Your task to perform on an android device: Open my contact list Image 0: 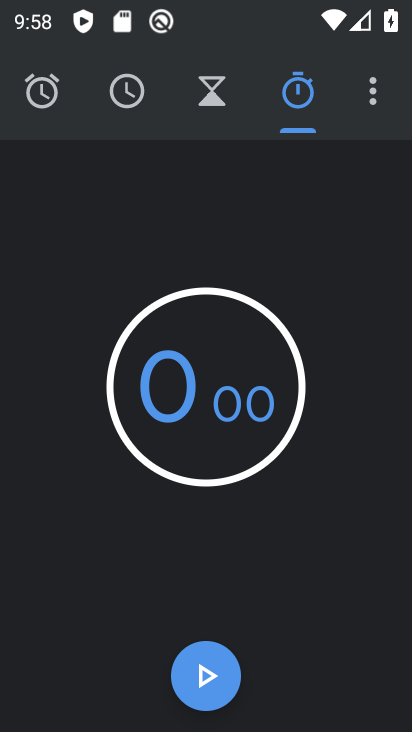
Step 0: press home button
Your task to perform on an android device: Open my contact list Image 1: 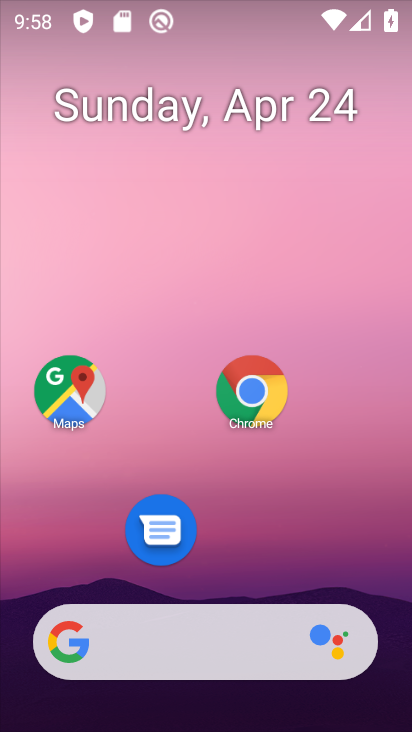
Step 1: drag from (297, 597) to (258, 20)
Your task to perform on an android device: Open my contact list Image 2: 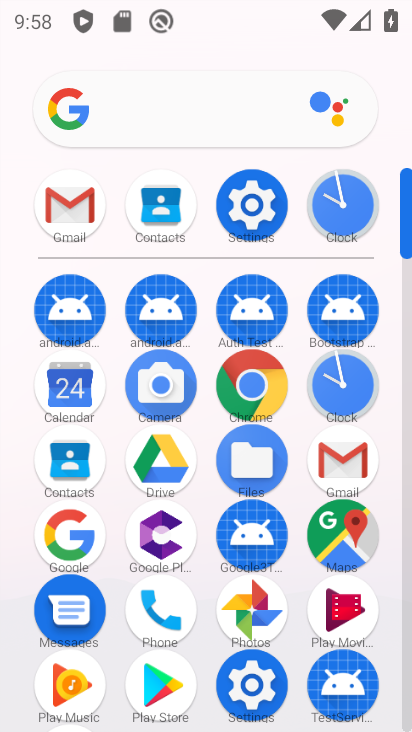
Step 2: click (168, 222)
Your task to perform on an android device: Open my contact list Image 3: 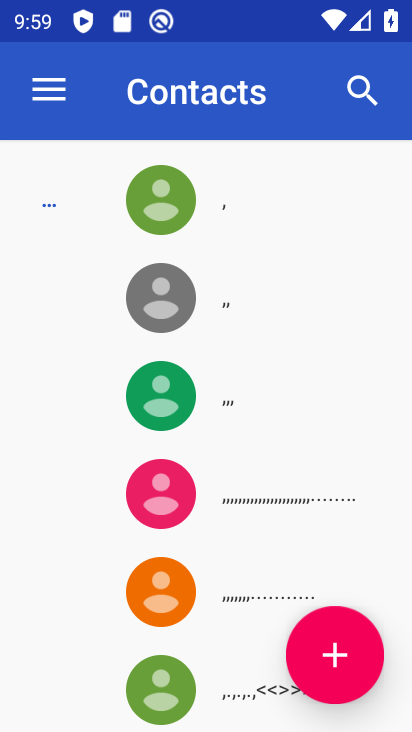
Step 3: click (348, 662)
Your task to perform on an android device: Open my contact list Image 4: 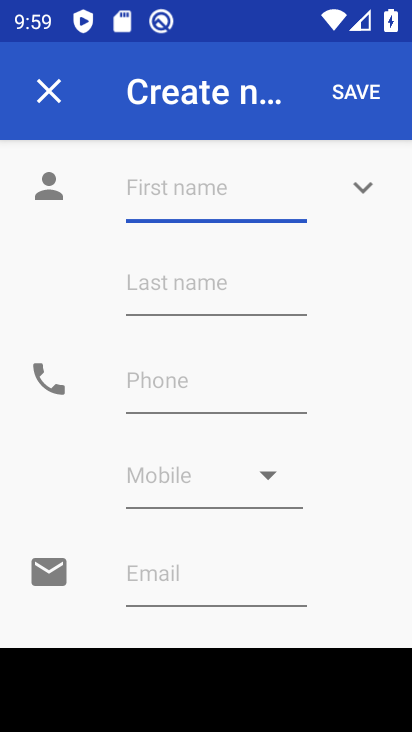
Step 4: type ",,,,"
Your task to perform on an android device: Open my contact list Image 5: 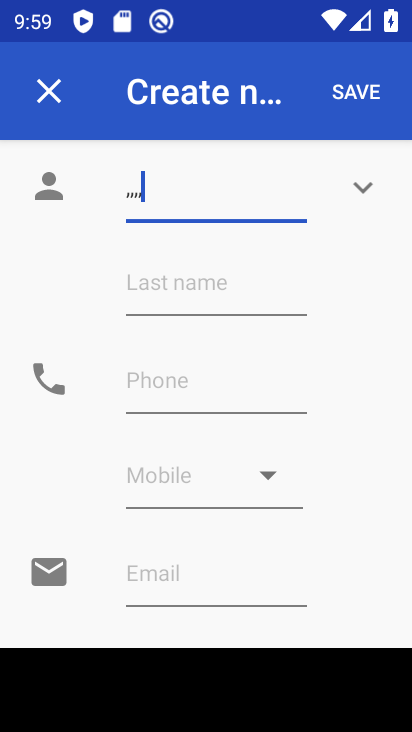
Step 5: type ""
Your task to perform on an android device: Open my contact list Image 6: 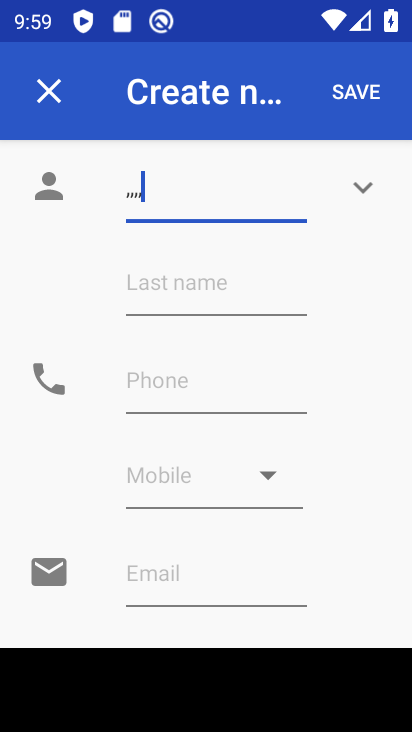
Step 6: click (169, 368)
Your task to perform on an android device: Open my contact list Image 7: 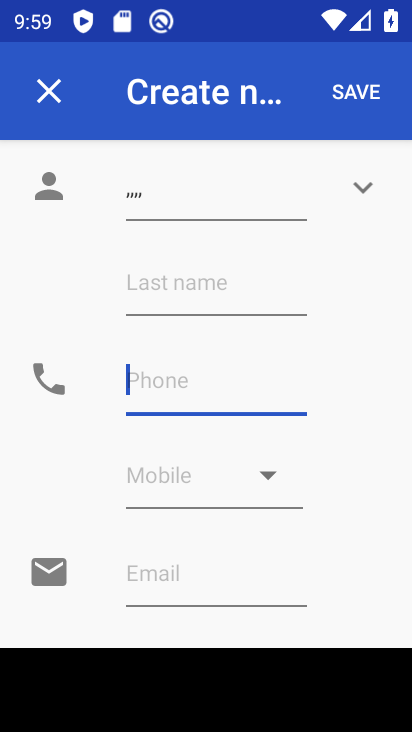
Step 7: type "876545678"
Your task to perform on an android device: Open my contact list Image 8: 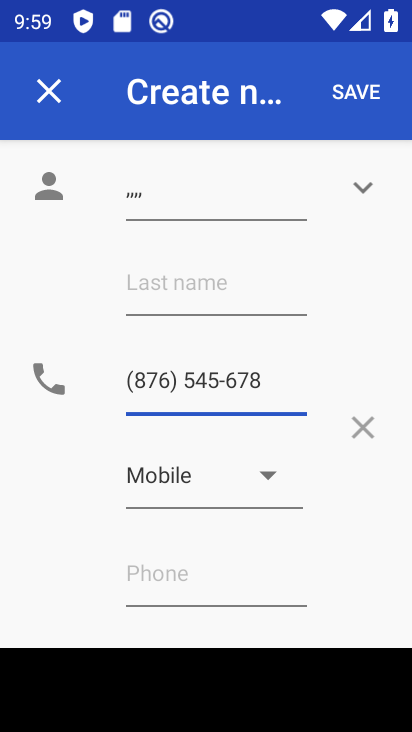
Step 8: click (328, 92)
Your task to perform on an android device: Open my contact list Image 9: 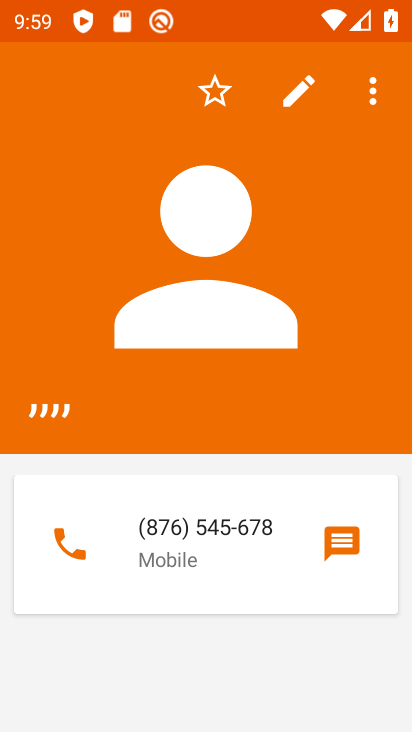
Step 9: task complete